Your task to perform on an android device: delete location history Image 0: 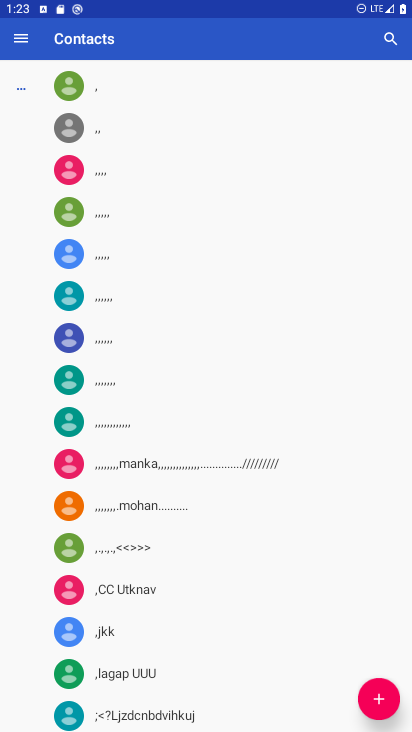
Step 0: press home button
Your task to perform on an android device: delete location history Image 1: 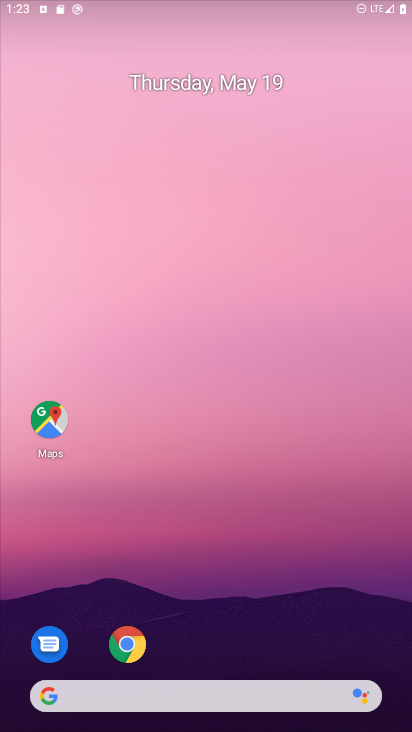
Step 1: drag from (351, 636) to (193, 76)
Your task to perform on an android device: delete location history Image 2: 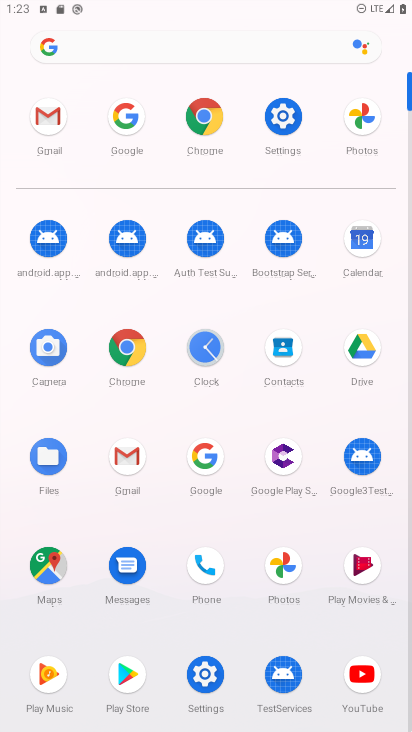
Step 2: click (217, 679)
Your task to perform on an android device: delete location history Image 3: 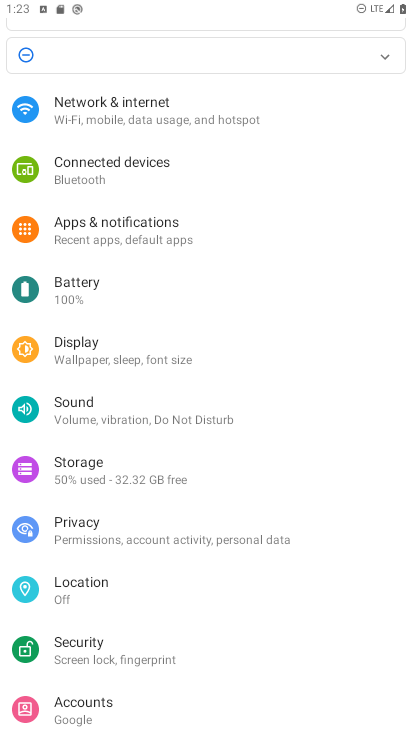
Step 3: click (79, 581)
Your task to perform on an android device: delete location history Image 4: 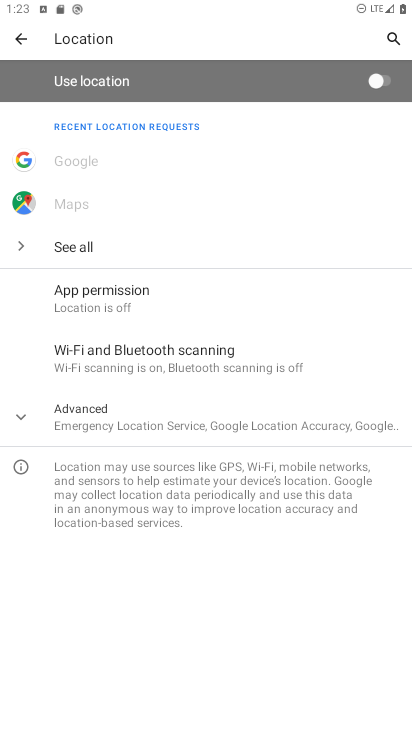
Step 4: click (35, 429)
Your task to perform on an android device: delete location history Image 5: 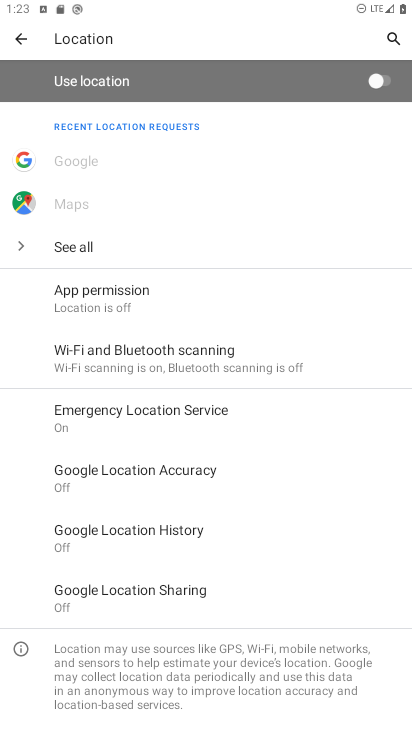
Step 5: click (170, 535)
Your task to perform on an android device: delete location history Image 6: 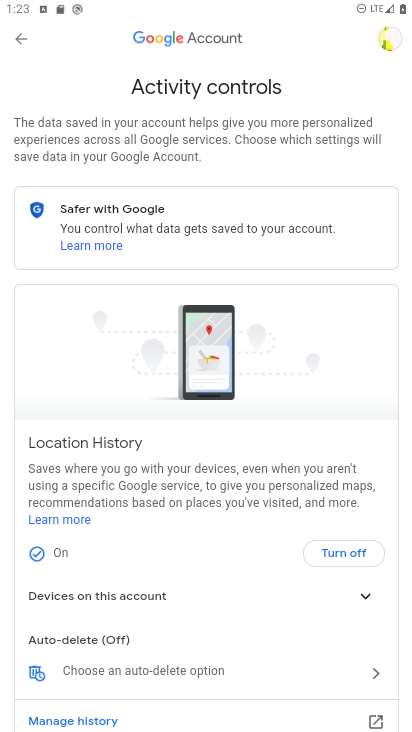
Step 6: drag from (252, 612) to (186, 227)
Your task to perform on an android device: delete location history Image 7: 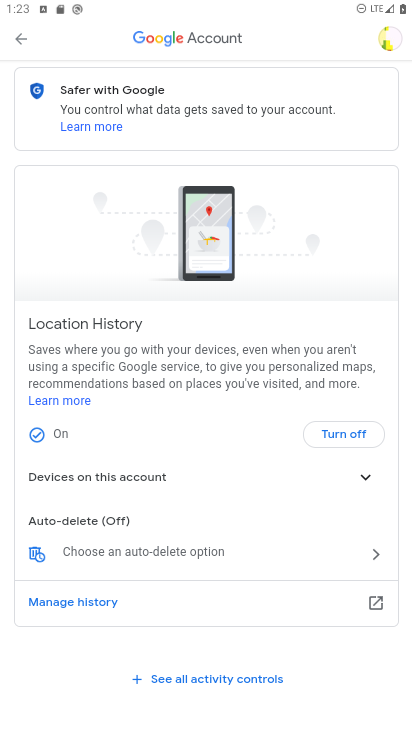
Step 7: click (201, 548)
Your task to perform on an android device: delete location history Image 8: 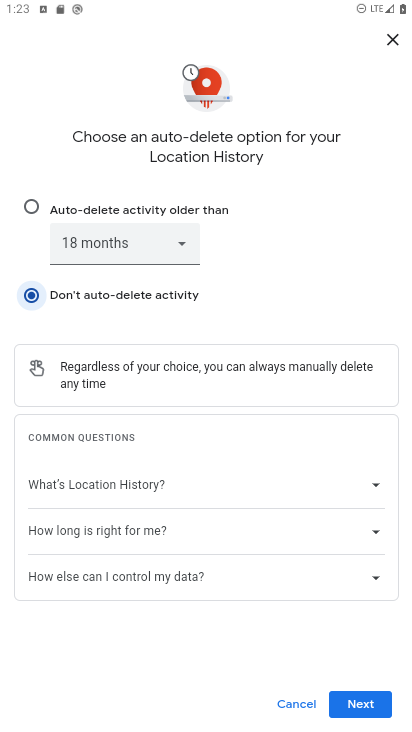
Step 8: click (368, 706)
Your task to perform on an android device: delete location history Image 9: 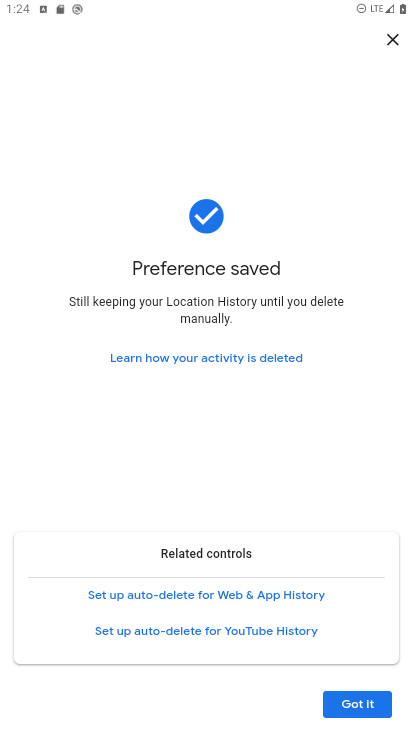
Step 9: click (359, 695)
Your task to perform on an android device: delete location history Image 10: 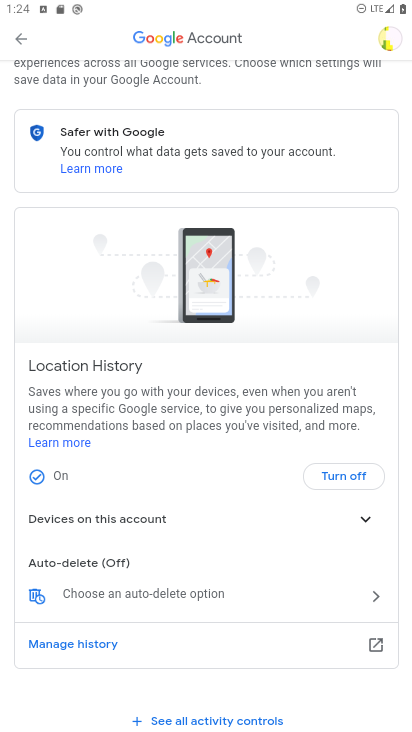
Step 10: task complete